Your task to perform on an android device: turn on translation in the chrome app Image 0: 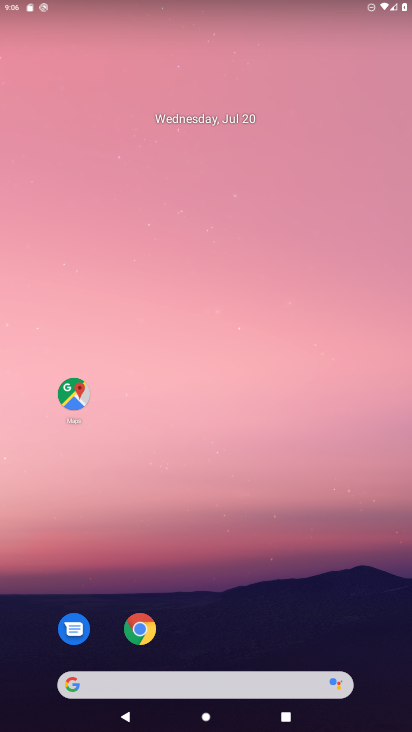
Step 0: click (140, 626)
Your task to perform on an android device: turn on translation in the chrome app Image 1: 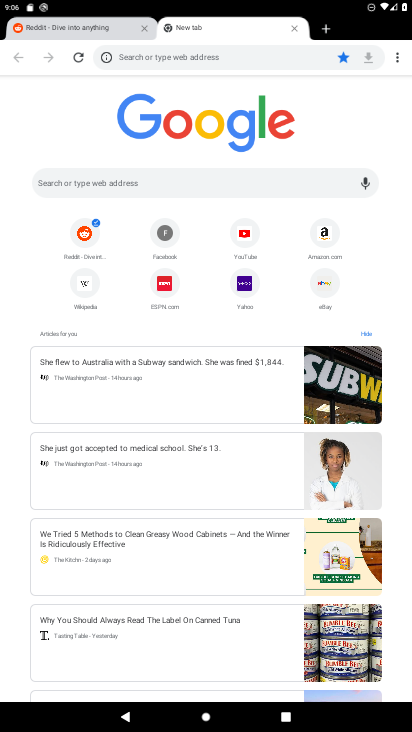
Step 1: click (397, 61)
Your task to perform on an android device: turn on translation in the chrome app Image 2: 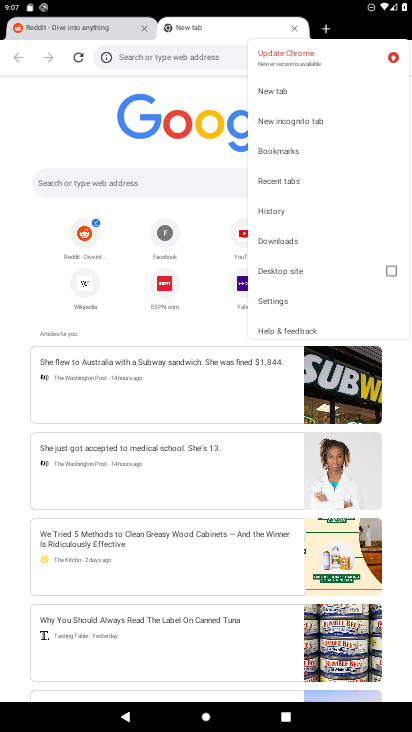
Step 2: click (270, 295)
Your task to perform on an android device: turn on translation in the chrome app Image 3: 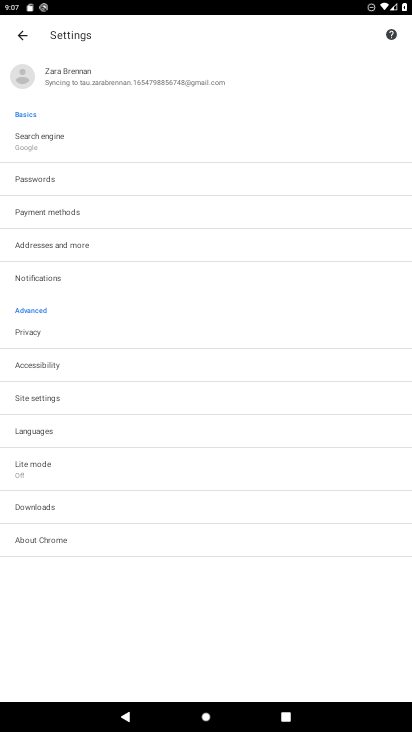
Step 3: click (31, 425)
Your task to perform on an android device: turn on translation in the chrome app Image 4: 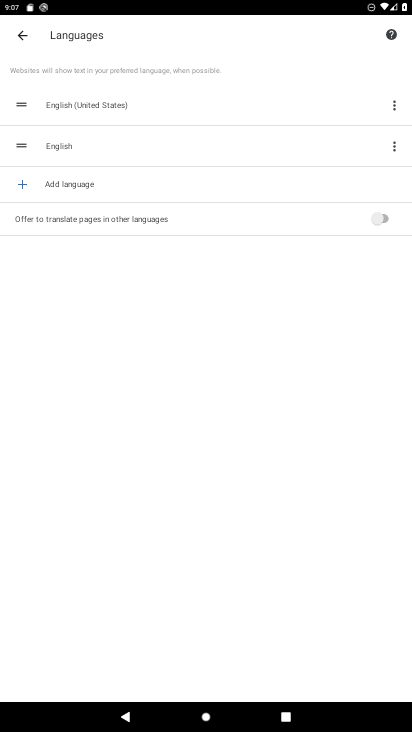
Step 4: click (384, 214)
Your task to perform on an android device: turn on translation in the chrome app Image 5: 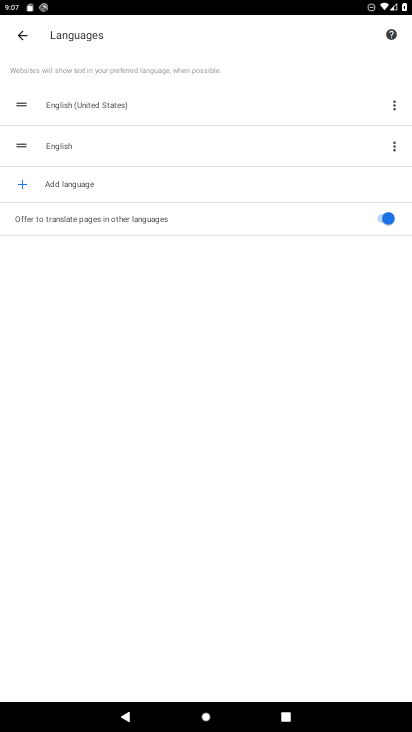
Step 5: task complete